Your task to perform on an android device: check the backup settings in the google photos Image 0: 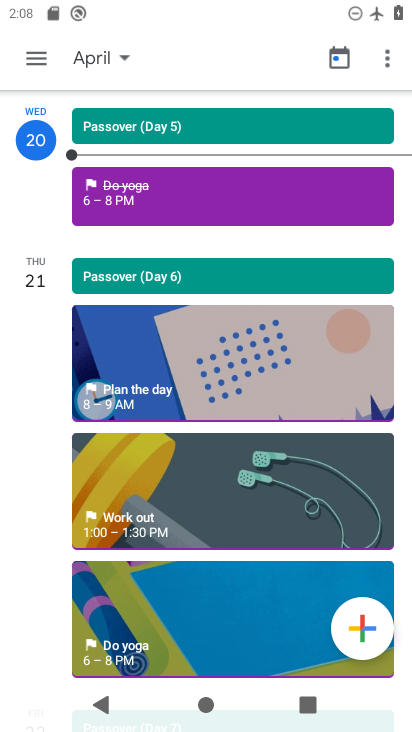
Step 0: press back button
Your task to perform on an android device: check the backup settings in the google photos Image 1: 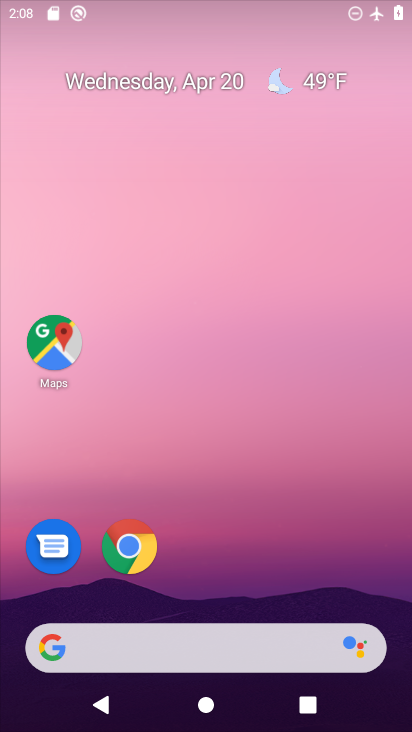
Step 1: drag from (231, 532) to (342, 74)
Your task to perform on an android device: check the backup settings in the google photos Image 2: 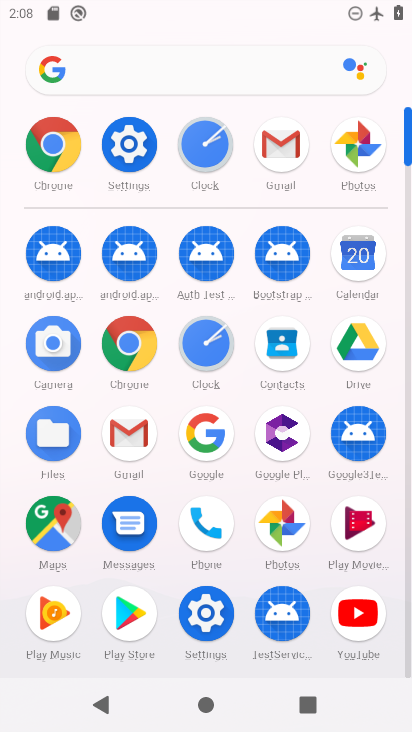
Step 2: click (285, 531)
Your task to perform on an android device: check the backup settings in the google photos Image 3: 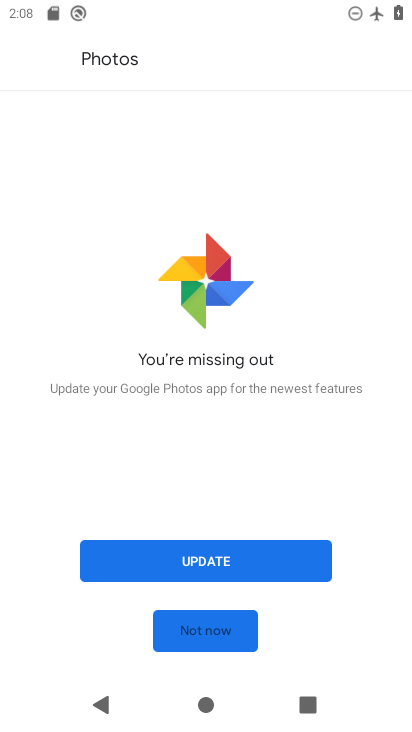
Step 3: click (206, 645)
Your task to perform on an android device: check the backup settings in the google photos Image 4: 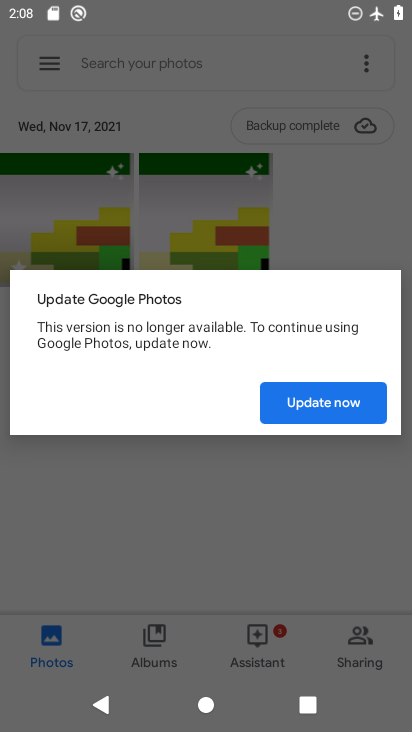
Step 4: click (297, 387)
Your task to perform on an android device: check the backup settings in the google photos Image 5: 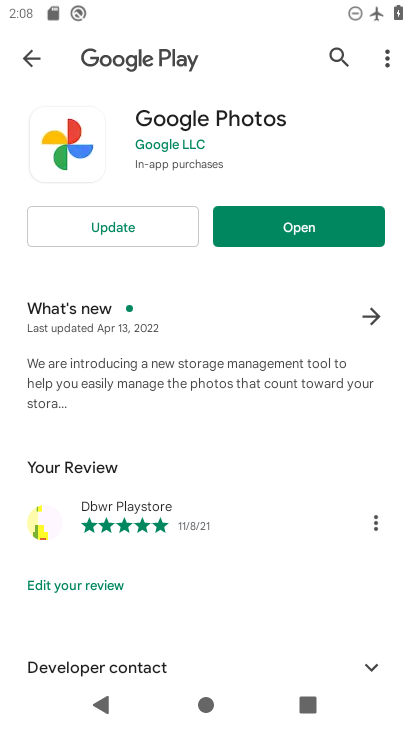
Step 5: click (286, 230)
Your task to perform on an android device: check the backup settings in the google photos Image 6: 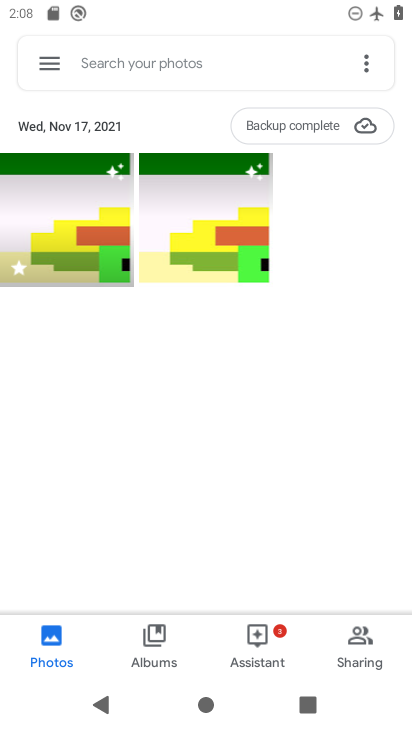
Step 6: click (36, 64)
Your task to perform on an android device: check the backup settings in the google photos Image 7: 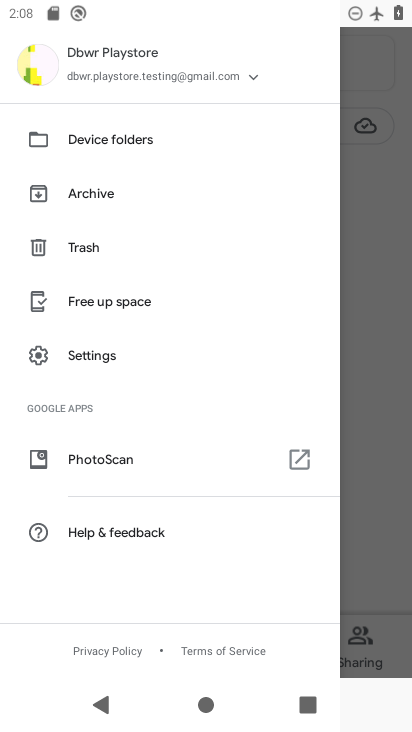
Step 7: click (101, 356)
Your task to perform on an android device: check the backup settings in the google photos Image 8: 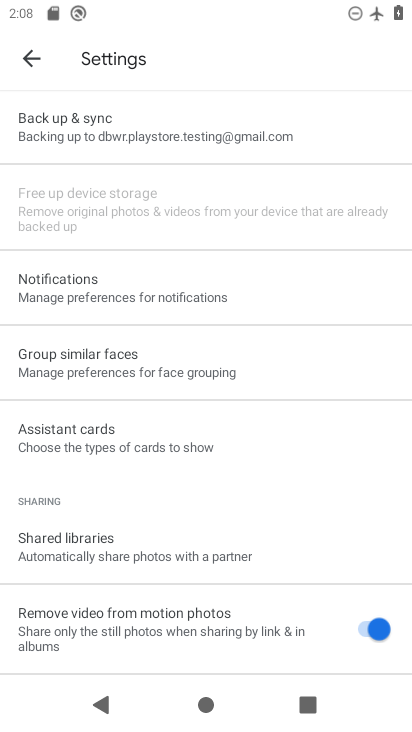
Step 8: click (120, 118)
Your task to perform on an android device: check the backup settings in the google photos Image 9: 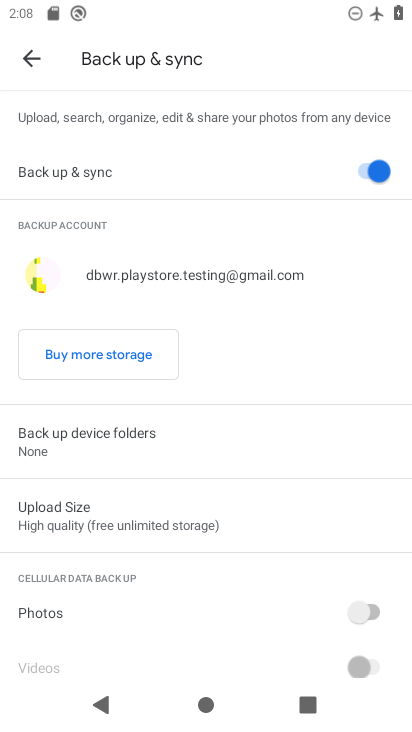
Step 9: click (86, 506)
Your task to perform on an android device: check the backup settings in the google photos Image 10: 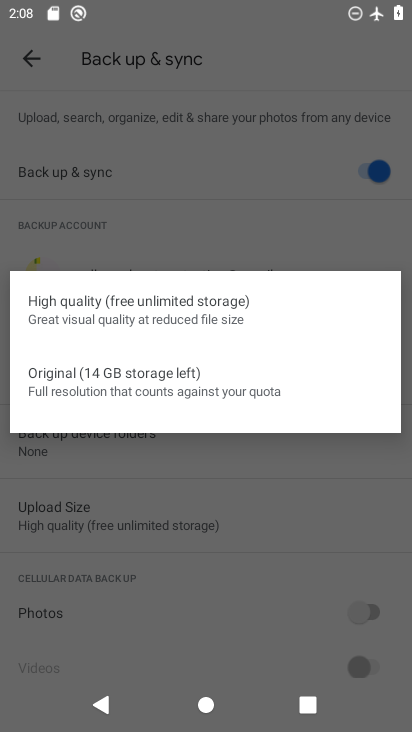
Step 10: click (352, 514)
Your task to perform on an android device: check the backup settings in the google photos Image 11: 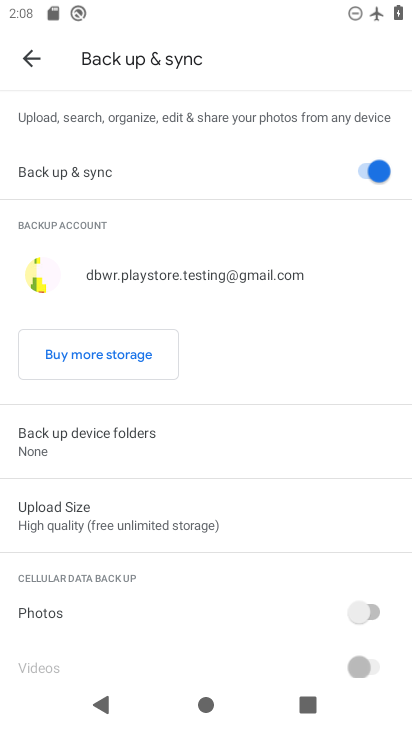
Step 11: task complete